Your task to perform on an android device: toggle javascript in the chrome app Image 0: 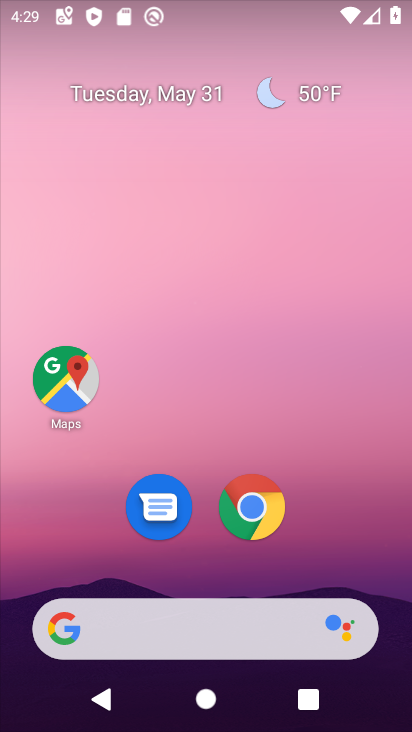
Step 0: click (261, 504)
Your task to perform on an android device: toggle javascript in the chrome app Image 1: 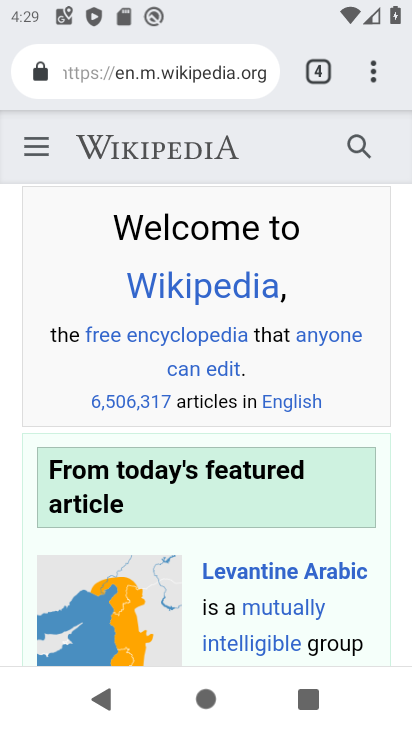
Step 1: click (367, 61)
Your task to perform on an android device: toggle javascript in the chrome app Image 2: 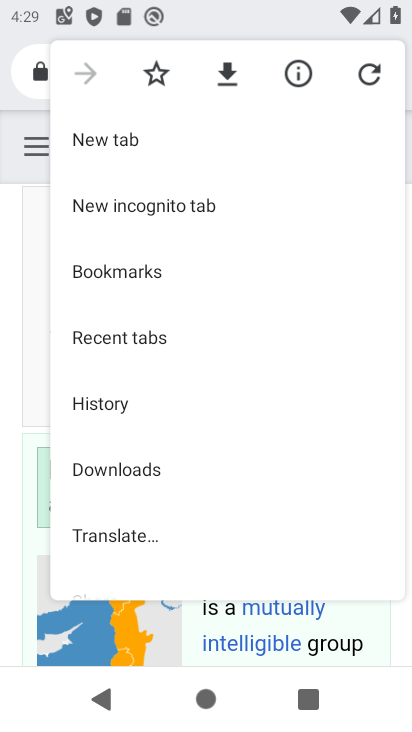
Step 2: drag from (257, 452) to (254, 140)
Your task to perform on an android device: toggle javascript in the chrome app Image 3: 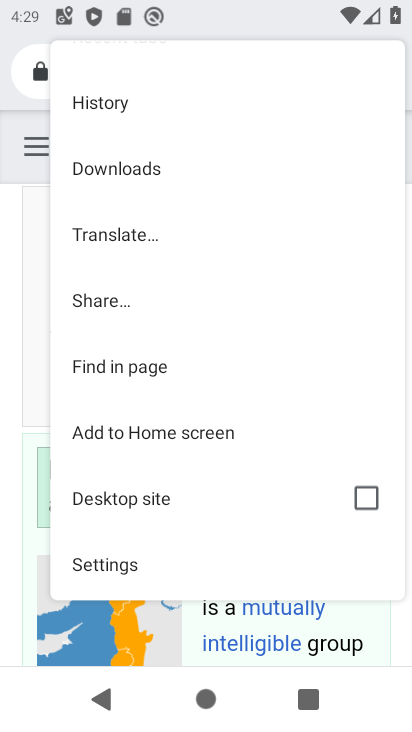
Step 3: click (132, 558)
Your task to perform on an android device: toggle javascript in the chrome app Image 4: 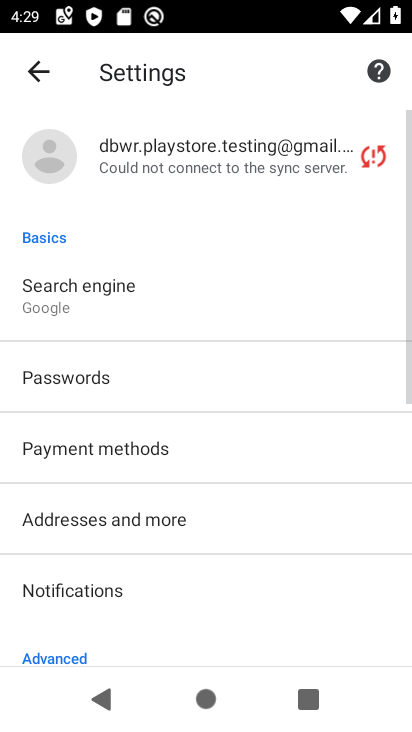
Step 4: drag from (217, 498) to (200, 191)
Your task to perform on an android device: toggle javascript in the chrome app Image 5: 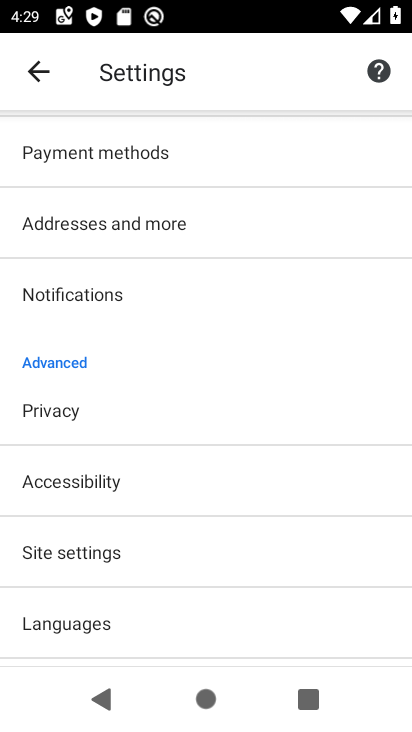
Step 5: click (194, 544)
Your task to perform on an android device: toggle javascript in the chrome app Image 6: 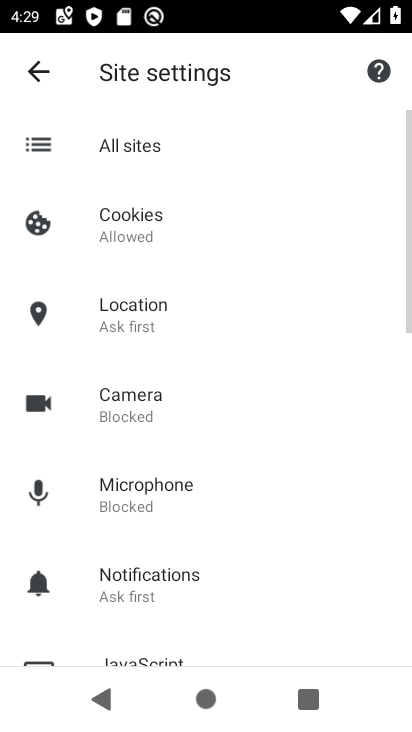
Step 6: drag from (258, 546) to (233, 198)
Your task to perform on an android device: toggle javascript in the chrome app Image 7: 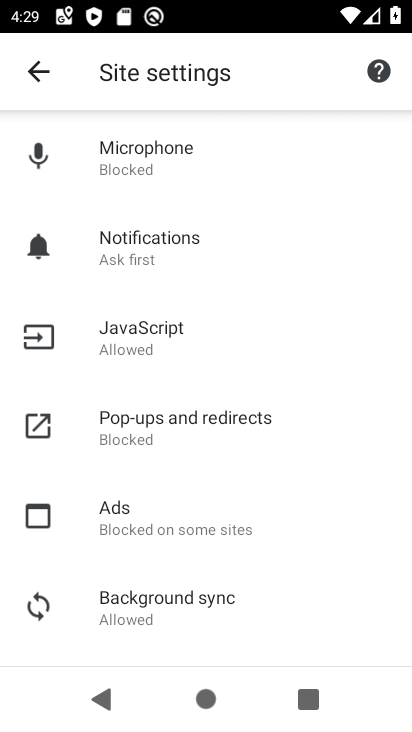
Step 7: click (200, 335)
Your task to perform on an android device: toggle javascript in the chrome app Image 8: 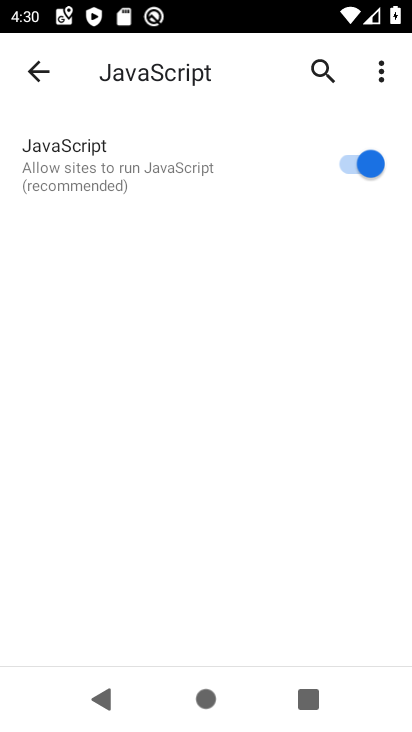
Step 8: click (360, 145)
Your task to perform on an android device: toggle javascript in the chrome app Image 9: 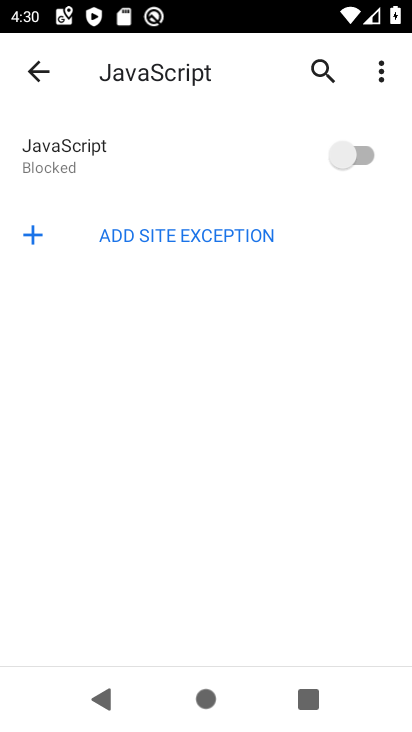
Step 9: task complete